Your task to perform on an android device: Open calendar and show me the second week of next month Image 0: 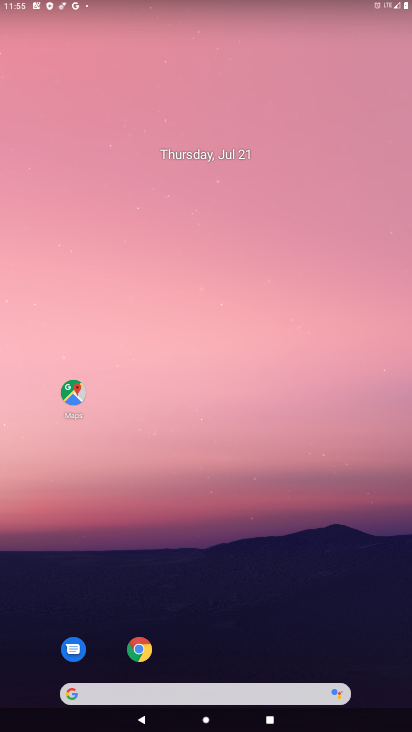
Step 0: drag from (250, 639) to (307, 6)
Your task to perform on an android device: Open calendar and show me the second week of next month Image 1: 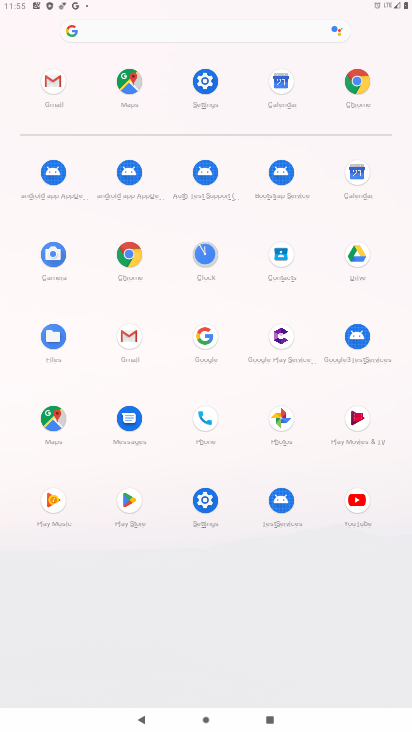
Step 1: click (358, 169)
Your task to perform on an android device: Open calendar and show me the second week of next month Image 2: 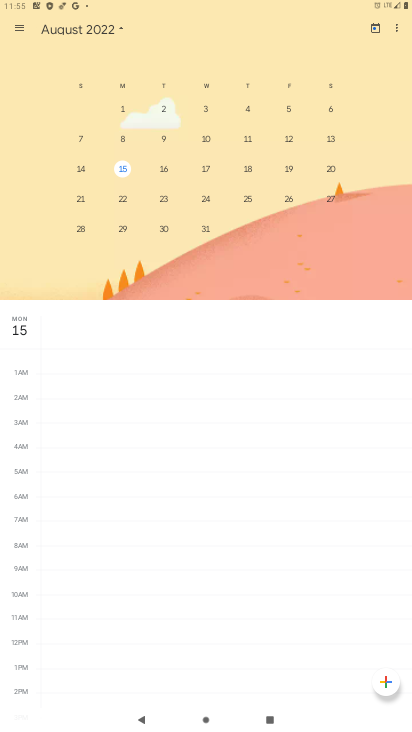
Step 2: click (130, 142)
Your task to perform on an android device: Open calendar and show me the second week of next month Image 3: 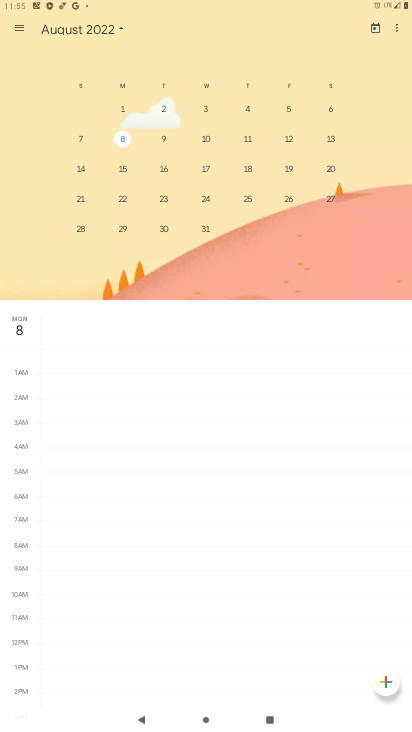
Step 3: click (23, 29)
Your task to perform on an android device: Open calendar and show me the second week of next month Image 4: 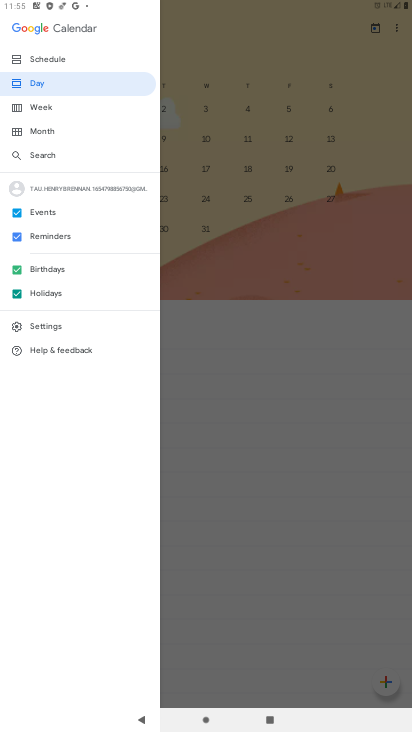
Step 4: click (47, 109)
Your task to perform on an android device: Open calendar and show me the second week of next month Image 5: 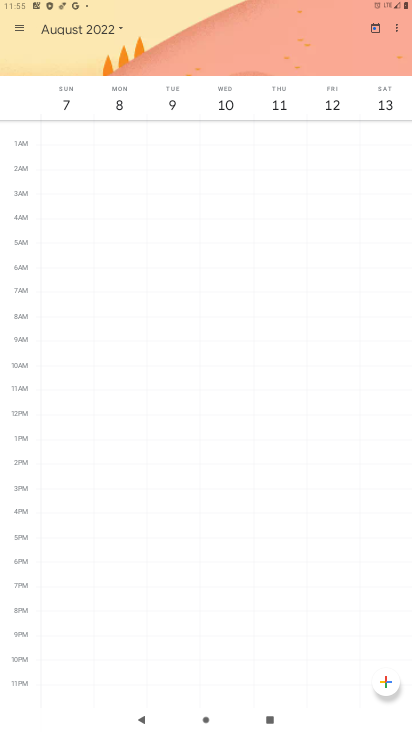
Step 5: task complete